Your task to perform on an android device: install app "Venmo" Image 0: 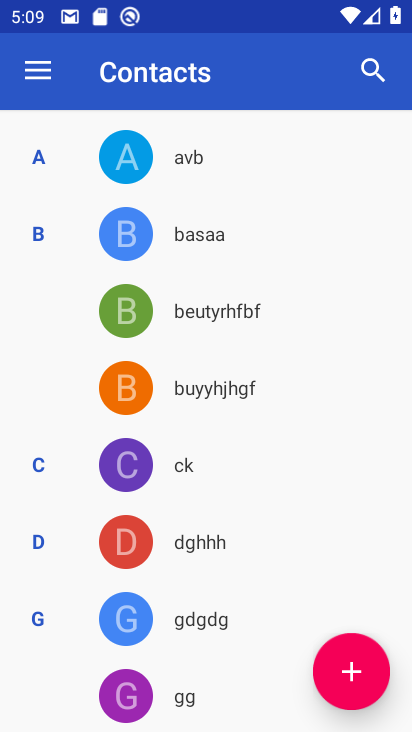
Step 0: press home button
Your task to perform on an android device: install app "Venmo" Image 1: 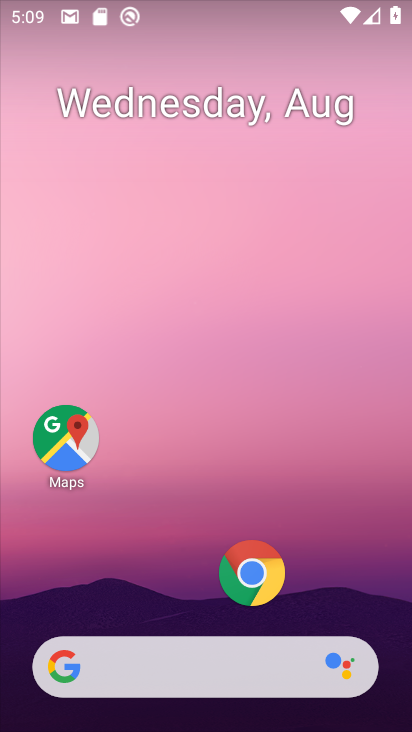
Step 1: drag from (206, 556) to (205, 50)
Your task to perform on an android device: install app "Venmo" Image 2: 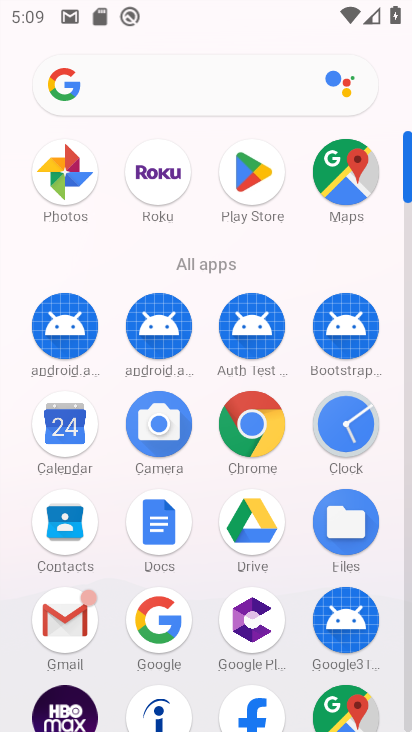
Step 2: click (243, 168)
Your task to perform on an android device: install app "Venmo" Image 3: 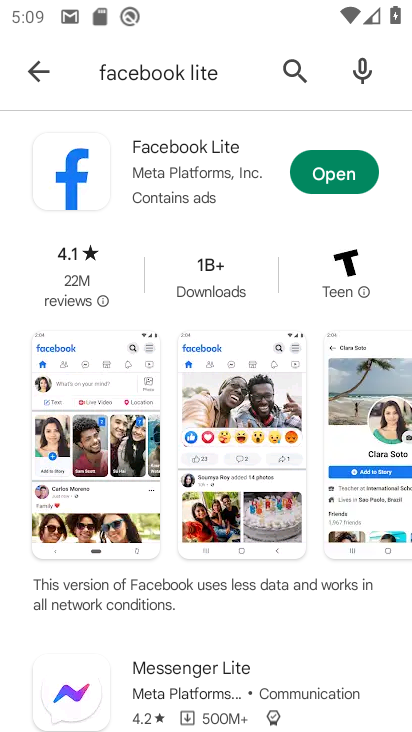
Step 3: click (30, 70)
Your task to perform on an android device: install app "Venmo" Image 4: 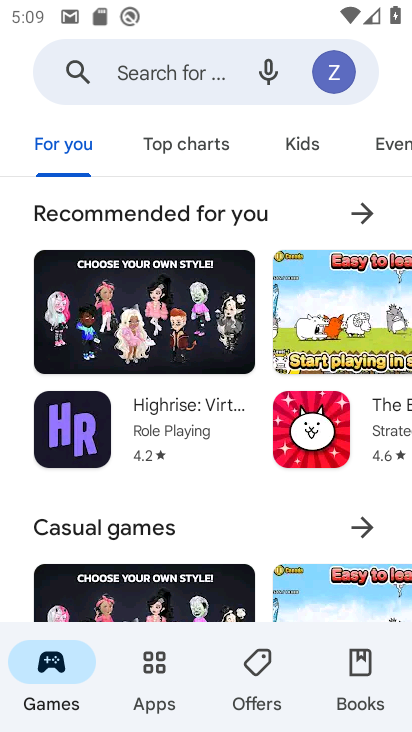
Step 4: click (133, 79)
Your task to perform on an android device: install app "Venmo" Image 5: 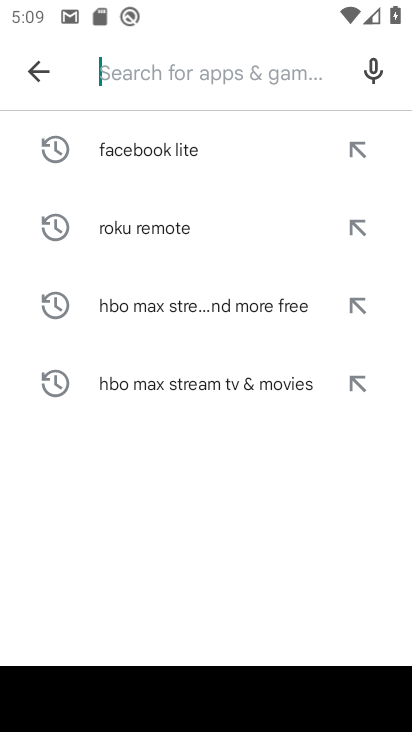
Step 5: type "Venmo"
Your task to perform on an android device: install app "Venmo" Image 6: 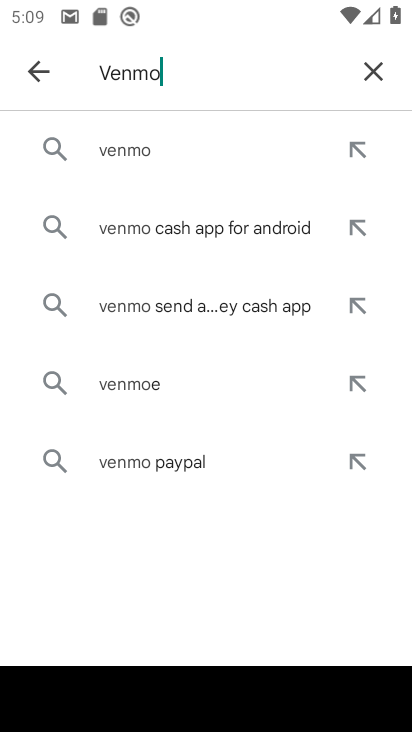
Step 6: click (133, 149)
Your task to perform on an android device: install app "Venmo" Image 7: 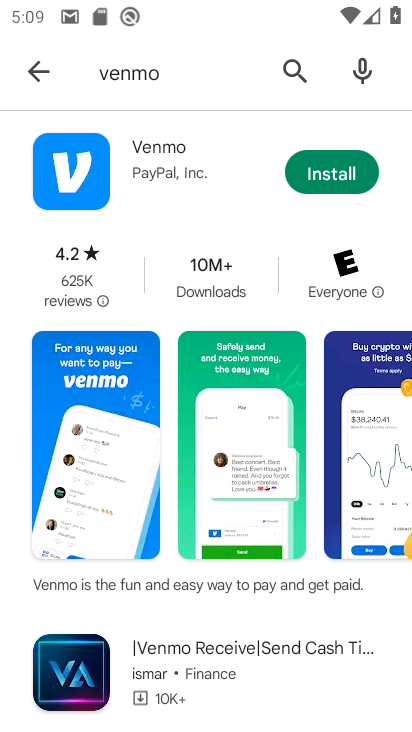
Step 7: click (327, 179)
Your task to perform on an android device: install app "Venmo" Image 8: 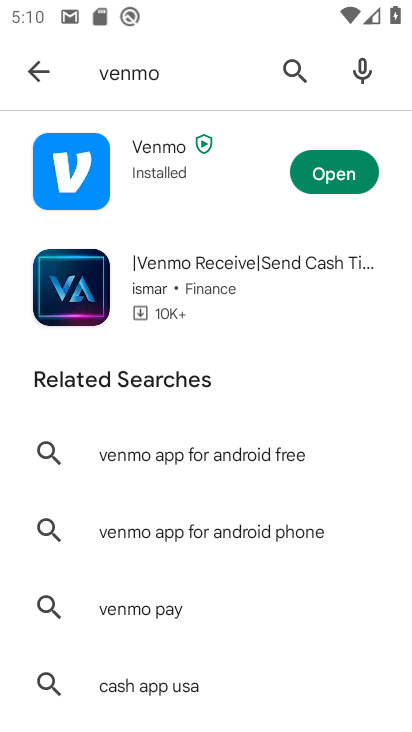
Step 8: task complete